Your task to perform on an android device: check storage Image 0: 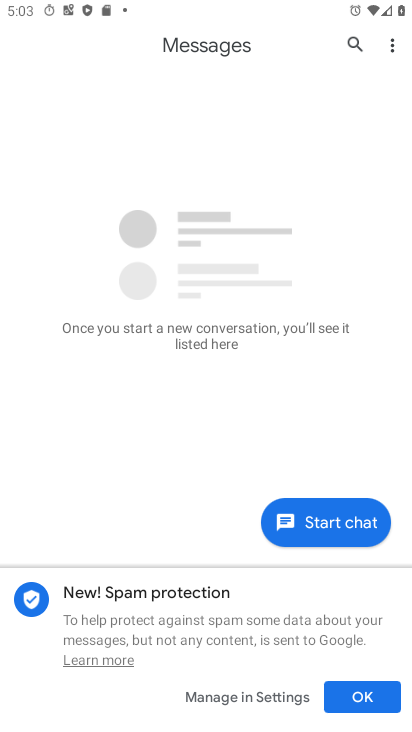
Step 0: press home button
Your task to perform on an android device: check storage Image 1: 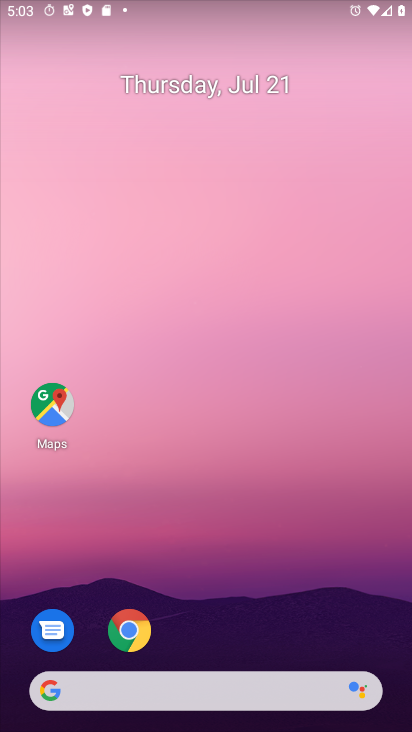
Step 1: drag from (166, 688) to (275, 175)
Your task to perform on an android device: check storage Image 2: 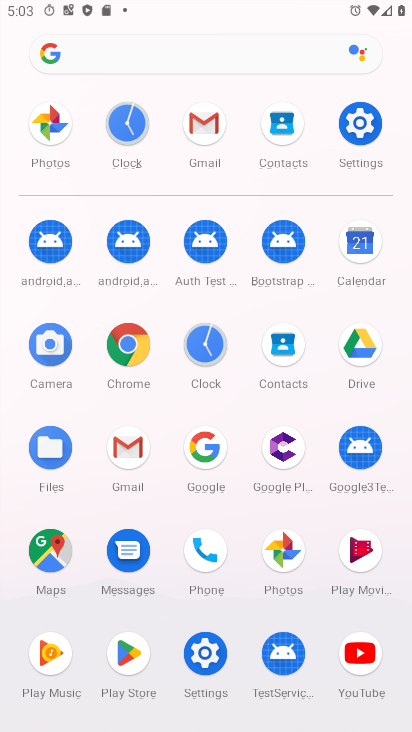
Step 2: click (360, 123)
Your task to perform on an android device: check storage Image 3: 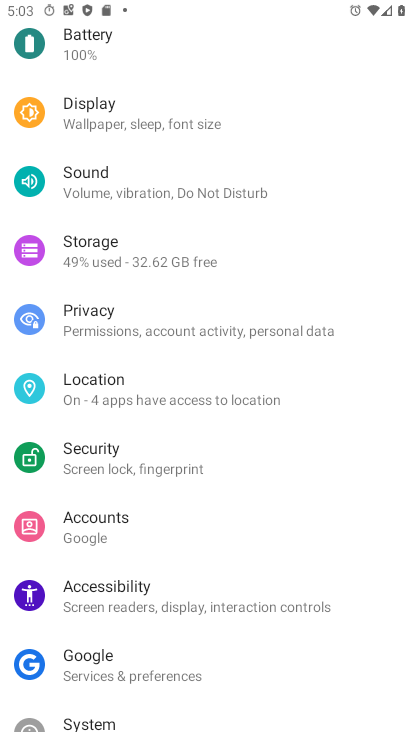
Step 3: click (120, 256)
Your task to perform on an android device: check storage Image 4: 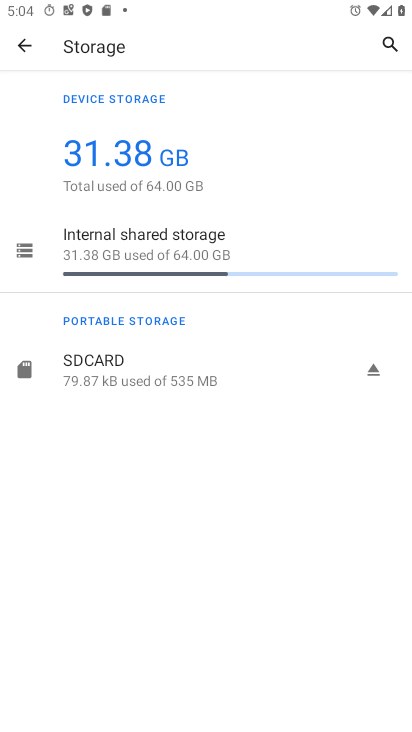
Step 4: task complete